Your task to perform on an android device: Open internet settings Image 0: 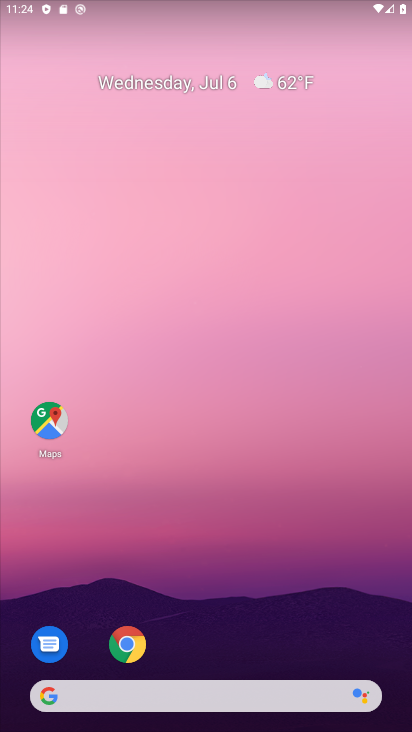
Step 0: click (401, 586)
Your task to perform on an android device: Open internet settings Image 1: 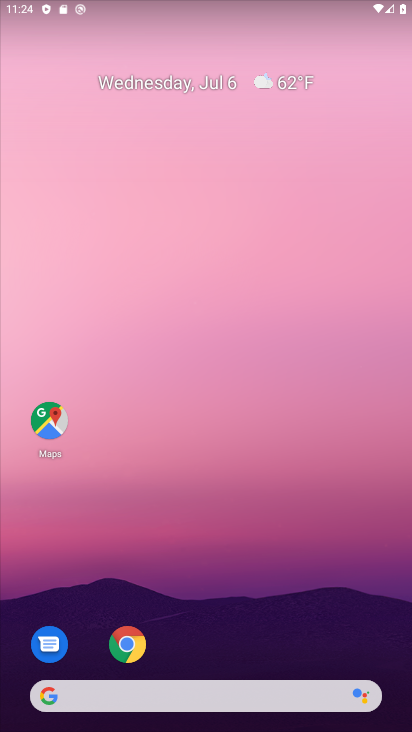
Step 1: drag from (191, 612) to (245, 31)
Your task to perform on an android device: Open internet settings Image 2: 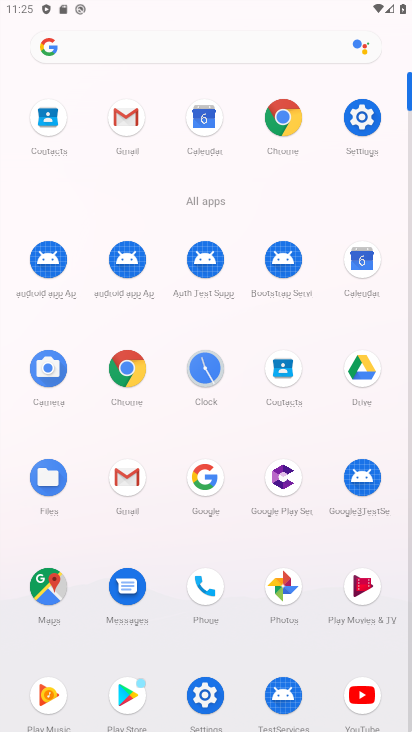
Step 2: click (222, 695)
Your task to perform on an android device: Open internet settings Image 3: 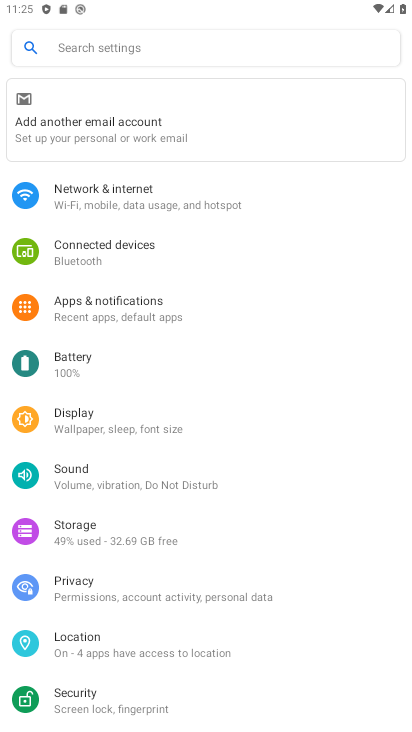
Step 3: click (191, 210)
Your task to perform on an android device: Open internet settings Image 4: 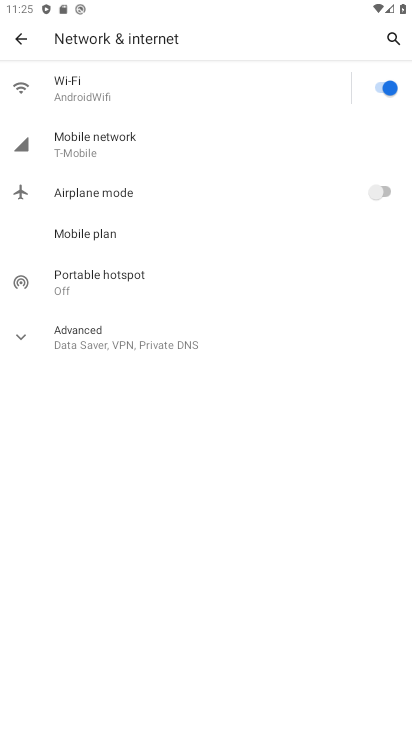
Step 4: click (183, 157)
Your task to perform on an android device: Open internet settings Image 5: 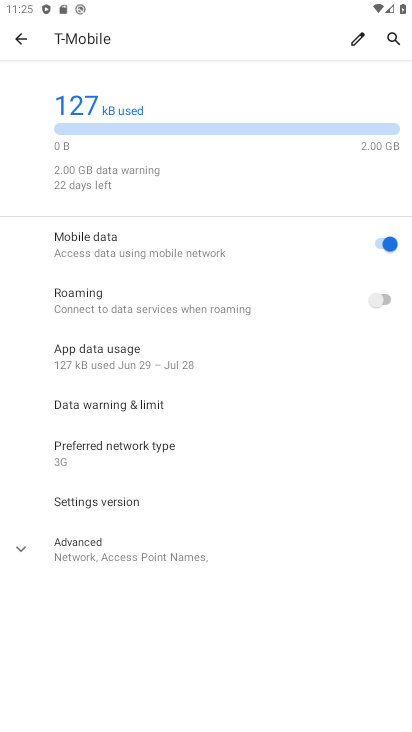
Step 5: task complete